Your task to perform on an android device: turn on notifications settings in the gmail app Image 0: 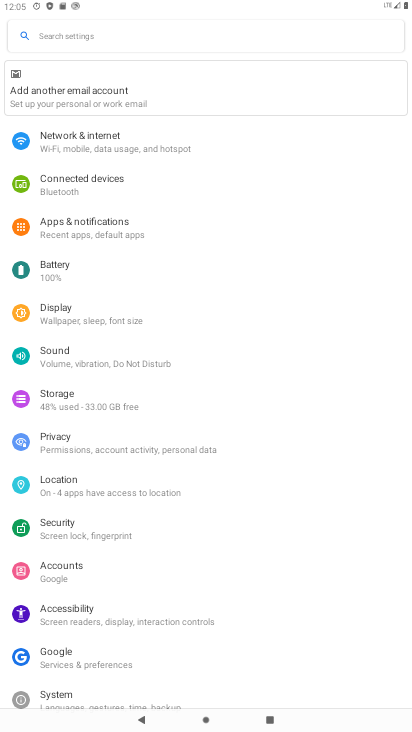
Step 0: press home button
Your task to perform on an android device: turn on notifications settings in the gmail app Image 1: 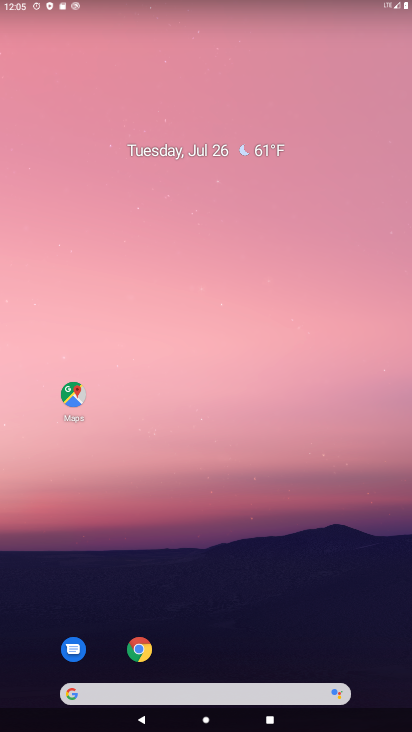
Step 1: drag from (205, 655) to (284, 13)
Your task to perform on an android device: turn on notifications settings in the gmail app Image 2: 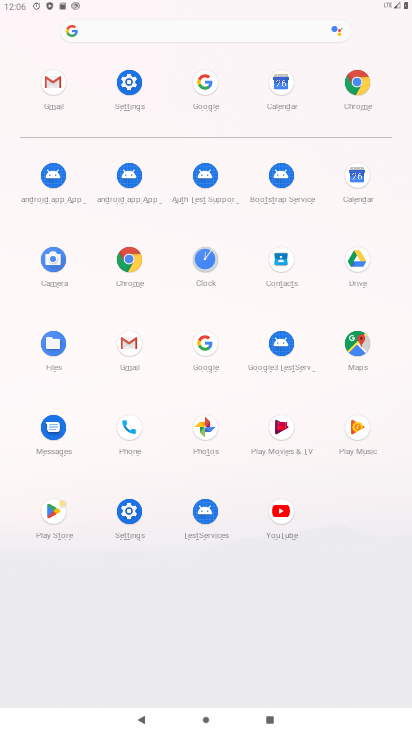
Step 2: click (133, 351)
Your task to perform on an android device: turn on notifications settings in the gmail app Image 3: 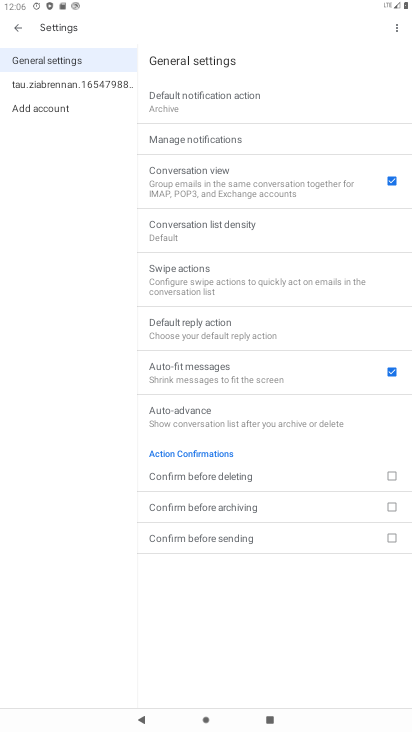
Step 3: click (200, 125)
Your task to perform on an android device: turn on notifications settings in the gmail app Image 4: 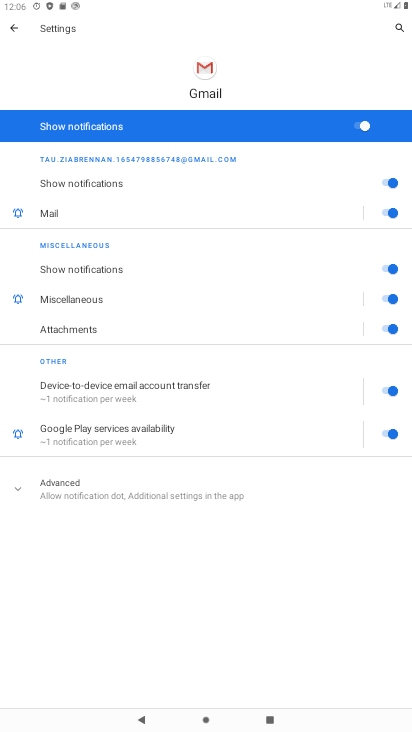
Step 4: task complete